Your task to perform on an android device: Go to calendar. Show me events next week Image 0: 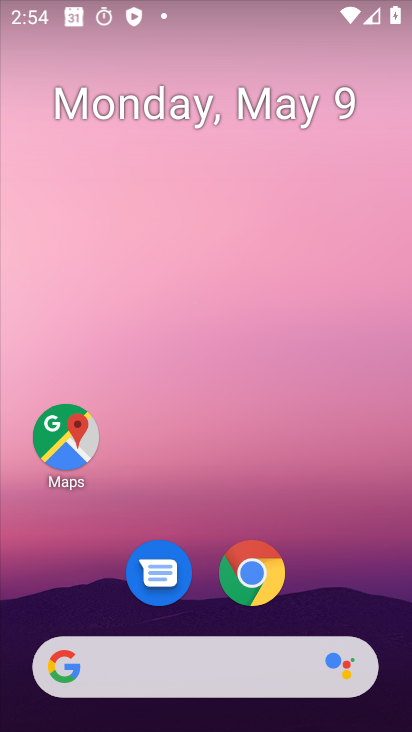
Step 0: drag from (350, 695) to (226, 245)
Your task to perform on an android device: Go to calendar. Show me events next week Image 1: 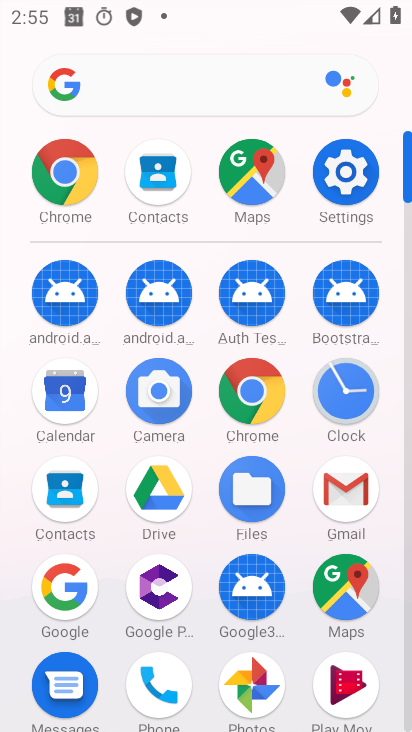
Step 1: click (335, 176)
Your task to perform on an android device: Go to calendar. Show me events next week Image 2: 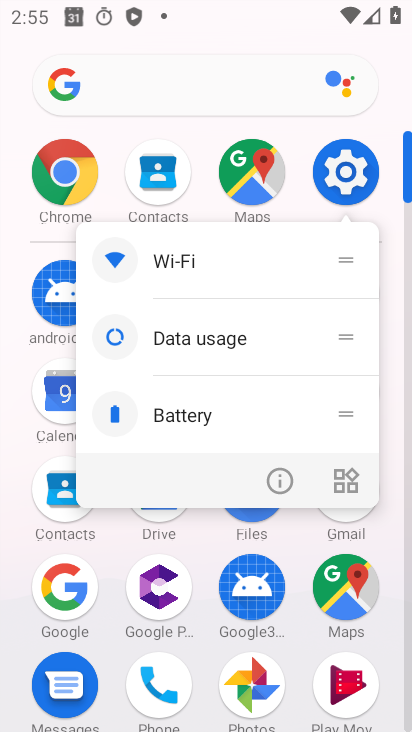
Step 2: click (344, 162)
Your task to perform on an android device: Go to calendar. Show me events next week Image 3: 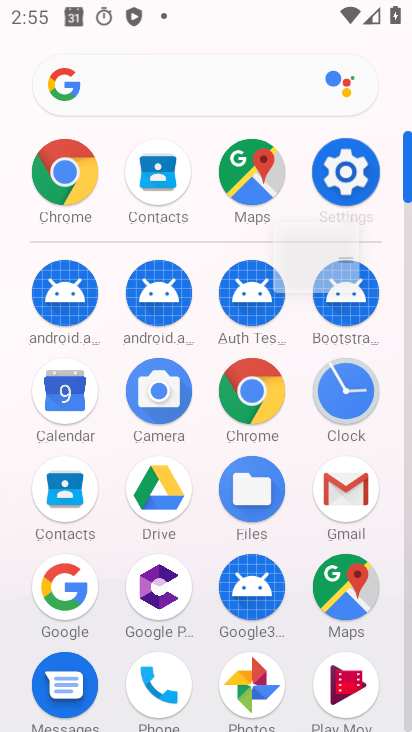
Step 3: click (345, 161)
Your task to perform on an android device: Go to calendar. Show me events next week Image 4: 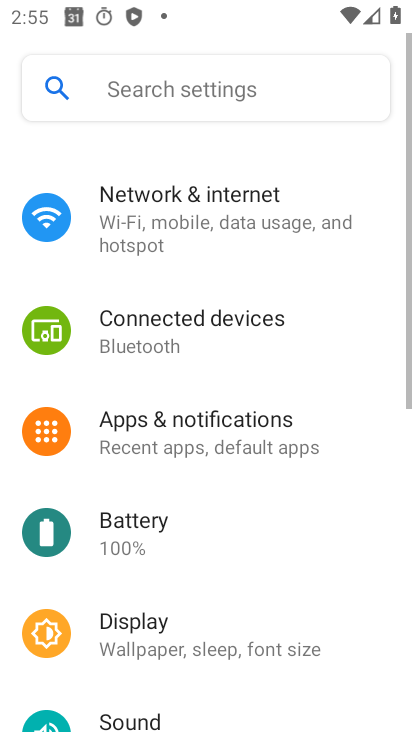
Step 4: click (345, 161)
Your task to perform on an android device: Go to calendar. Show me events next week Image 5: 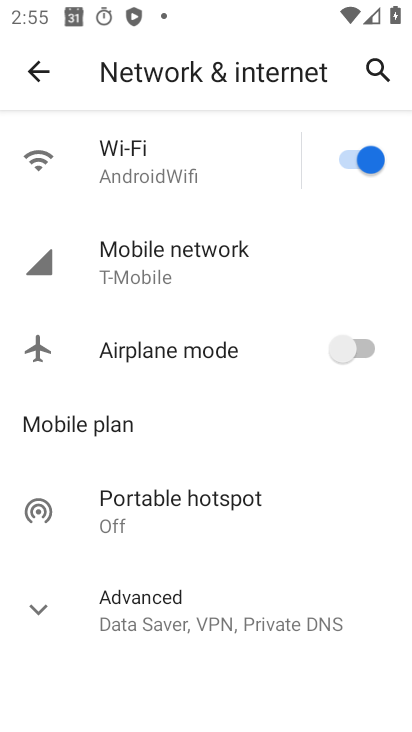
Step 5: click (199, 367)
Your task to perform on an android device: Go to calendar. Show me events next week Image 6: 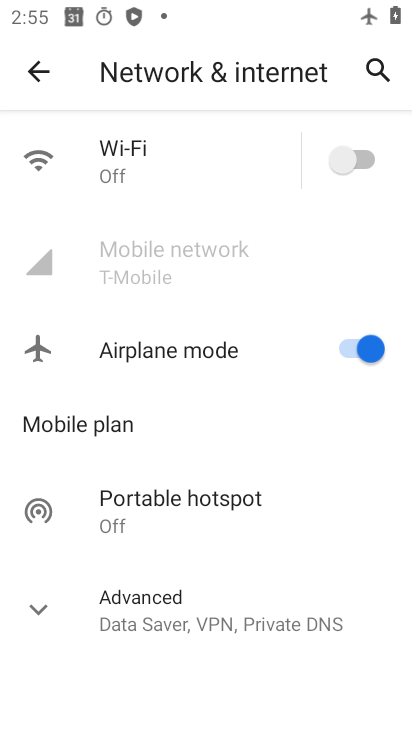
Step 6: click (348, 160)
Your task to perform on an android device: Go to calendar. Show me events next week Image 7: 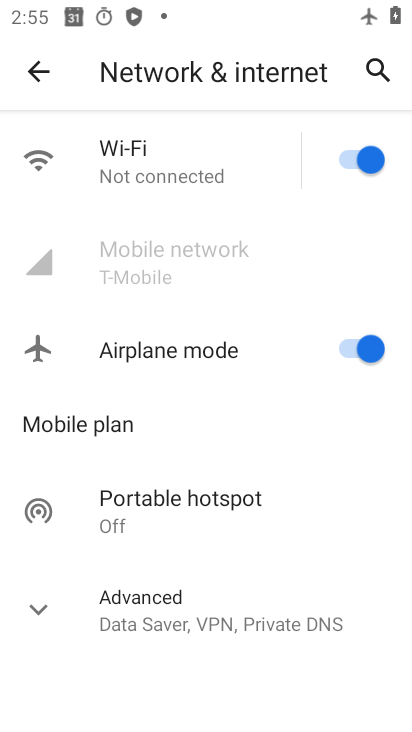
Step 7: click (370, 347)
Your task to perform on an android device: Go to calendar. Show me events next week Image 8: 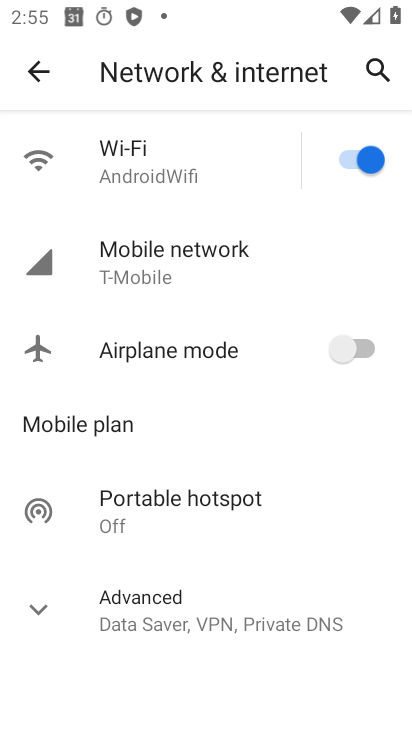
Step 8: press back button
Your task to perform on an android device: Go to calendar. Show me events next week Image 9: 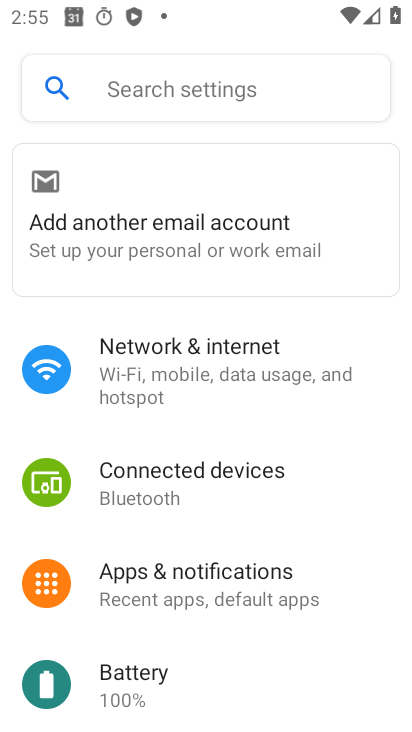
Step 9: press home button
Your task to perform on an android device: Go to calendar. Show me events next week Image 10: 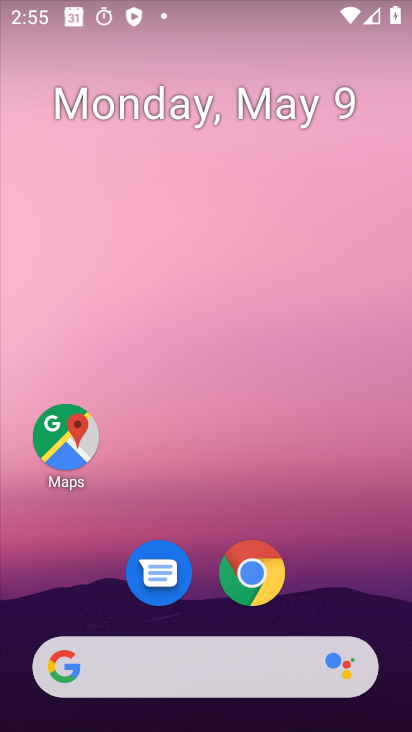
Step 10: drag from (361, 580) to (170, 22)
Your task to perform on an android device: Go to calendar. Show me events next week Image 11: 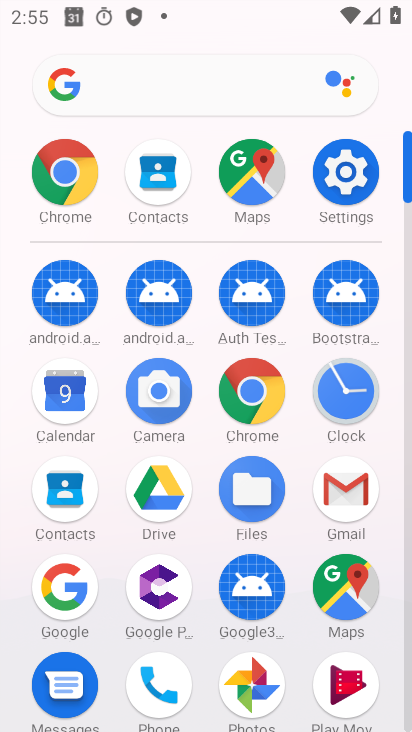
Step 11: click (65, 444)
Your task to perform on an android device: Go to calendar. Show me events next week Image 12: 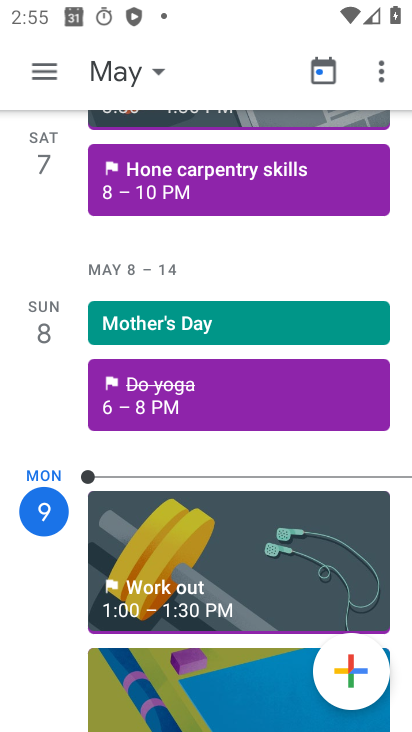
Step 12: click (160, 67)
Your task to perform on an android device: Go to calendar. Show me events next week Image 13: 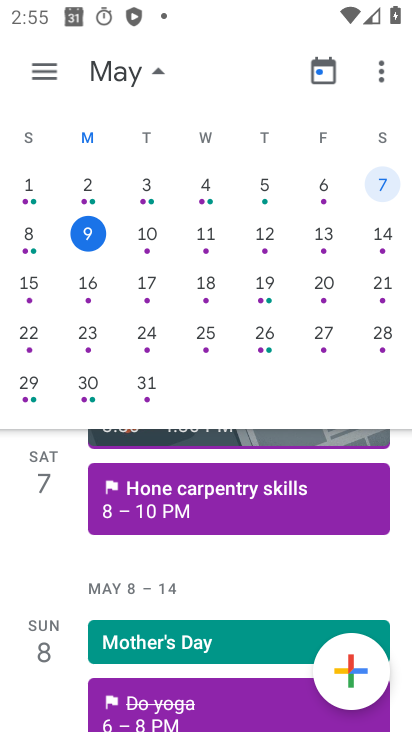
Step 13: drag from (198, 545) to (150, 205)
Your task to perform on an android device: Go to calendar. Show me events next week Image 14: 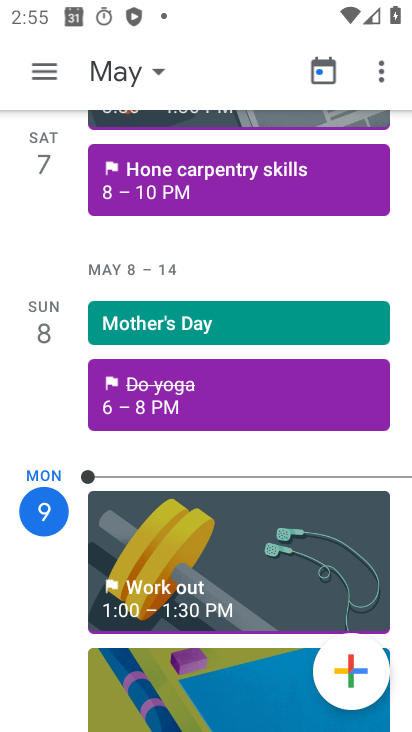
Step 14: drag from (238, 513) to (199, 212)
Your task to perform on an android device: Go to calendar. Show me events next week Image 15: 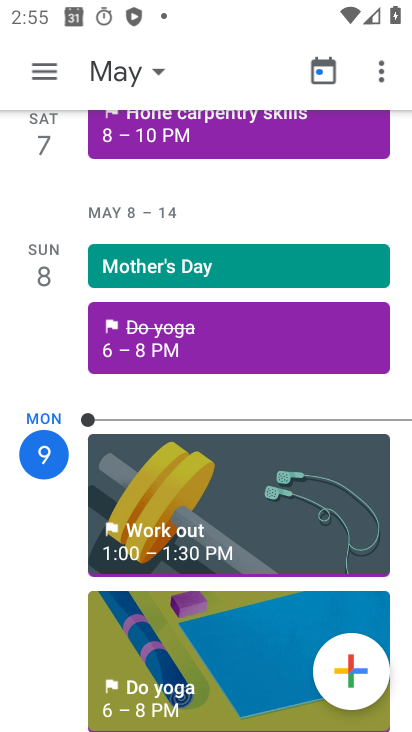
Step 15: drag from (216, 514) to (193, 154)
Your task to perform on an android device: Go to calendar. Show me events next week Image 16: 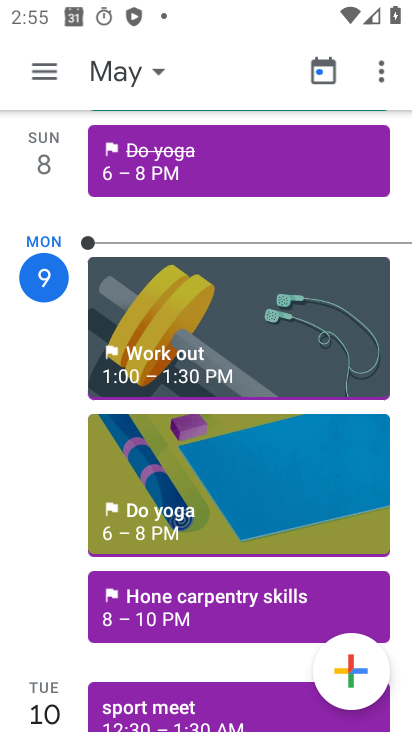
Step 16: drag from (181, 485) to (116, 205)
Your task to perform on an android device: Go to calendar. Show me events next week Image 17: 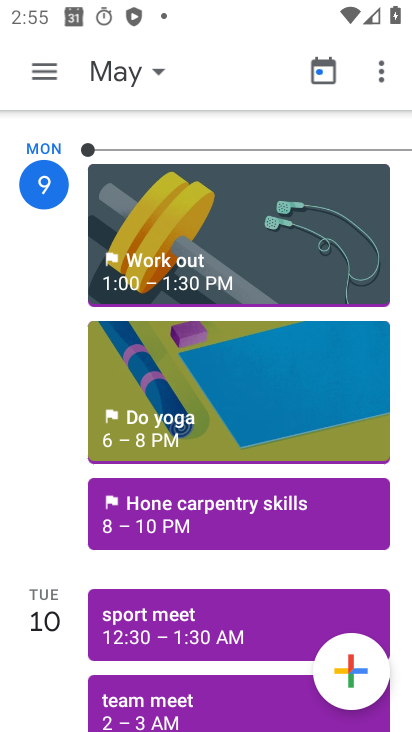
Step 17: drag from (130, 607) to (104, 167)
Your task to perform on an android device: Go to calendar. Show me events next week Image 18: 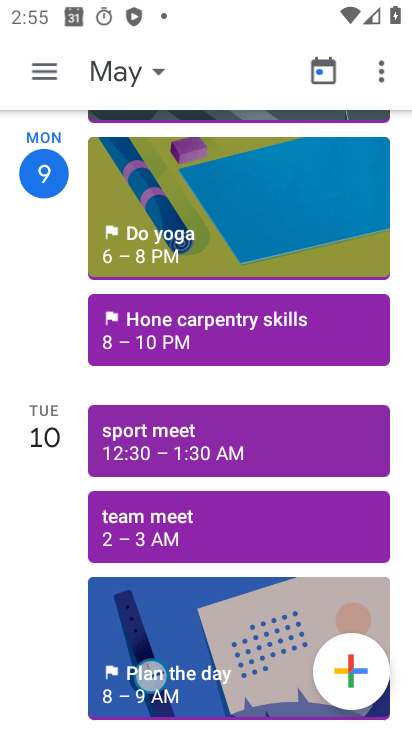
Step 18: drag from (188, 557) to (136, 184)
Your task to perform on an android device: Go to calendar. Show me events next week Image 19: 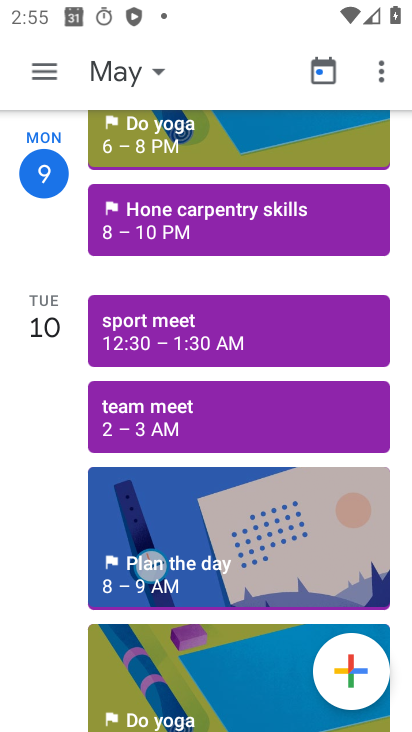
Step 19: drag from (134, 584) to (118, 203)
Your task to perform on an android device: Go to calendar. Show me events next week Image 20: 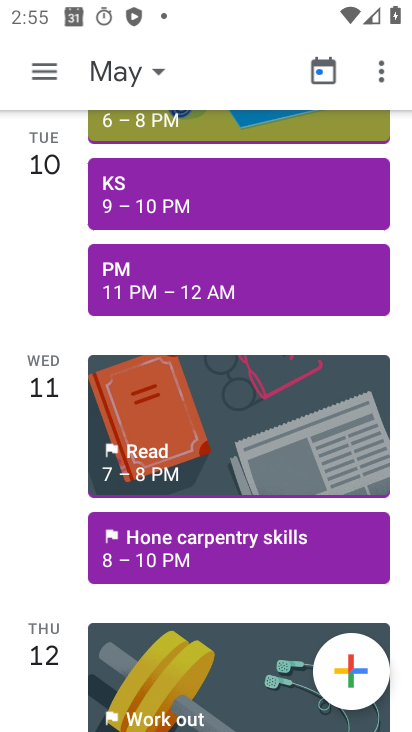
Step 20: click (106, 139)
Your task to perform on an android device: Go to calendar. Show me events next week Image 21: 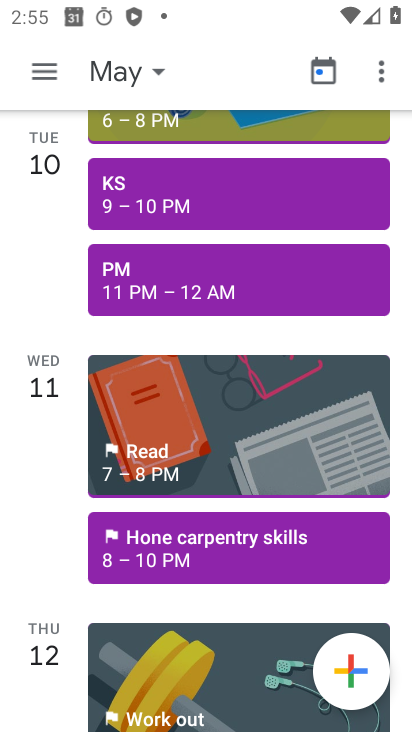
Step 21: drag from (180, 515) to (149, 157)
Your task to perform on an android device: Go to calendar. Show me events next week Image 22: 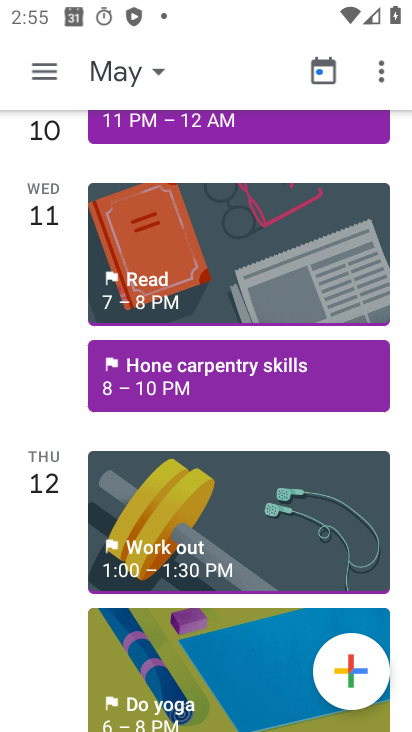
Step 22: drag from (120, 599) to (105, 190)
Your task to perform on an android device: Go to calendar. Show me events next week Image 23: 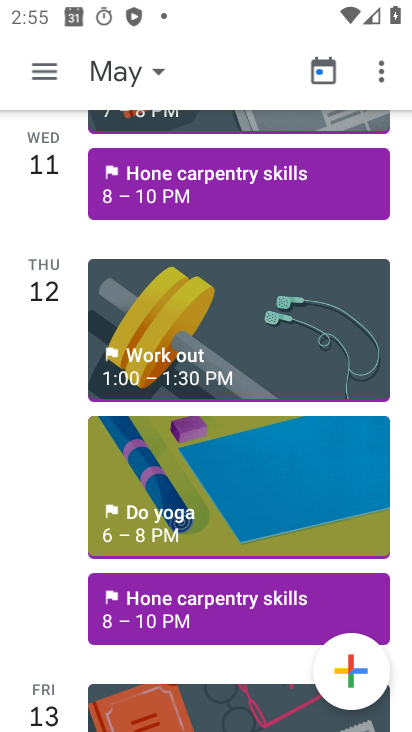
Step 23: drag from (137, 601) to (137, 174)
Your task to perform on an android device: Go to calendar. Show me events next week Image 24: 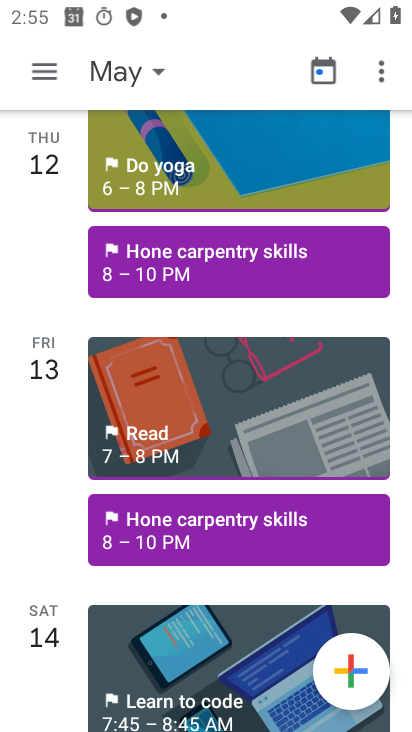
Step 24: drag from (198, 574) to (230, 272)
Your task to perform on an android device: Go to calendar. Show me events next week Image 25: 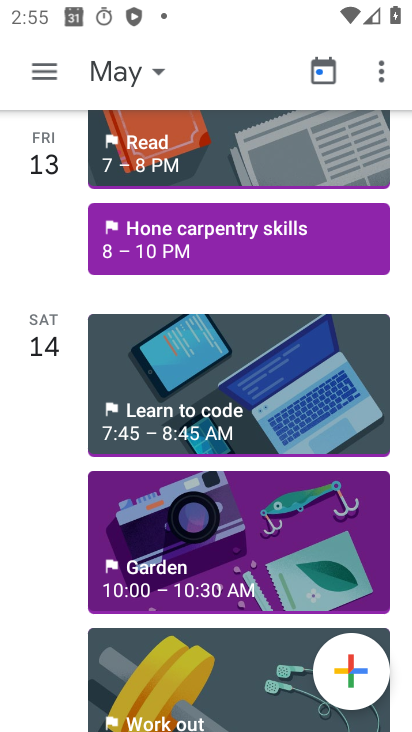
Step 25: drag from (248, 430) to (248, 227)
Your task to perform on an android device: Go to calendar. Show me events next week Image 26: 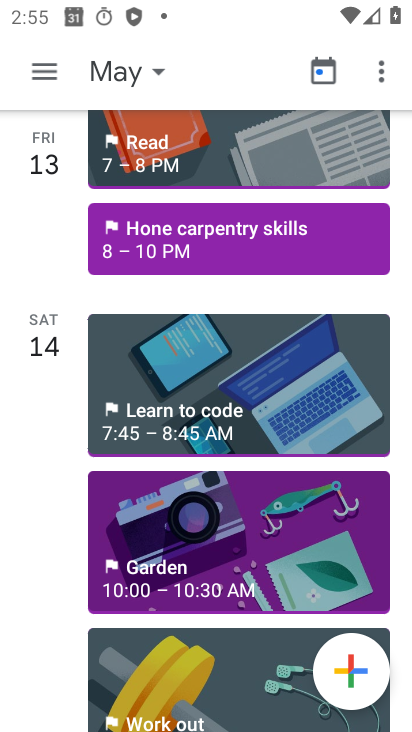
Step 26: drag from (220, 406) to (220, 230)
Your task to perform on an android device: Go to calendar. Show me events next week Image 27: 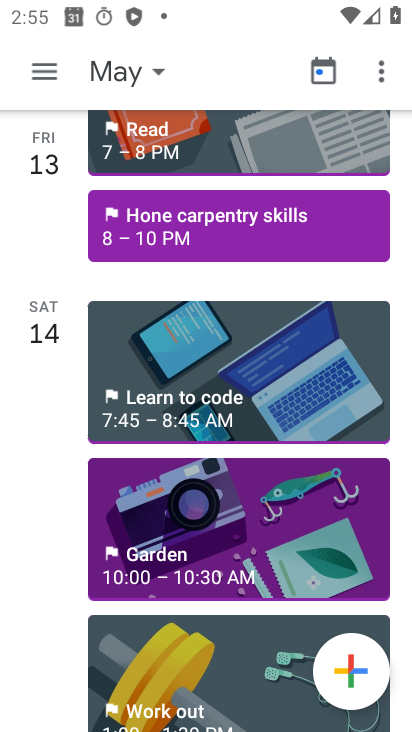
Step 27: drag from (220, 560) to (220, 299)
Your task to perform on an android device: Go to calendar. Show me events next week Image 28: 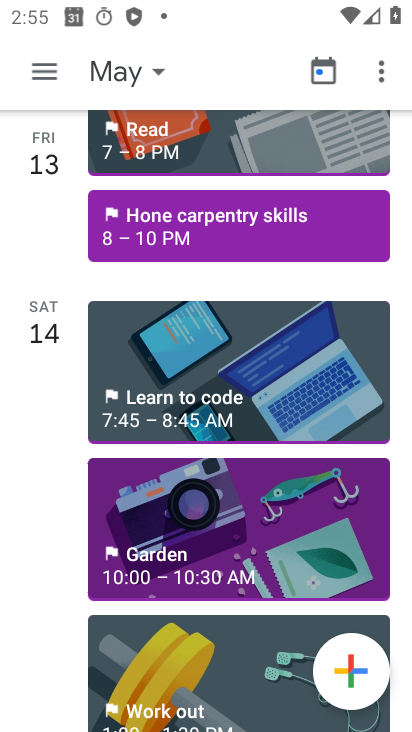
Step 28: drag from (261, 581) to (162, 275)
Your task to perform on an android device: Go to calendar. Show me events next week Image 29: 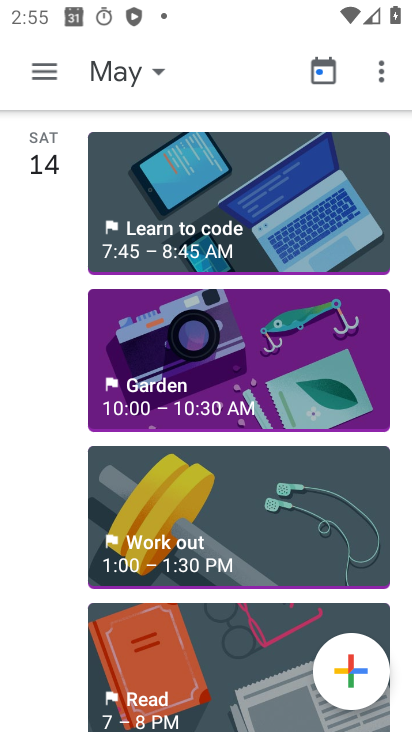
Step 29: drag from (173, 392) to (194, 103)
Your task to perform on an android device: Go to calendar. Show me events next week Image 30: 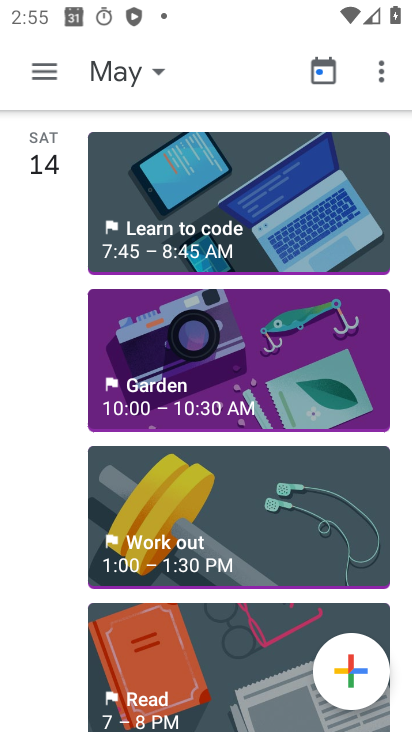
Step 30: drag from (225, 421) to (263, 95)
Your task to perform on an android device: Go to calendar. Show me events next week Image 31: 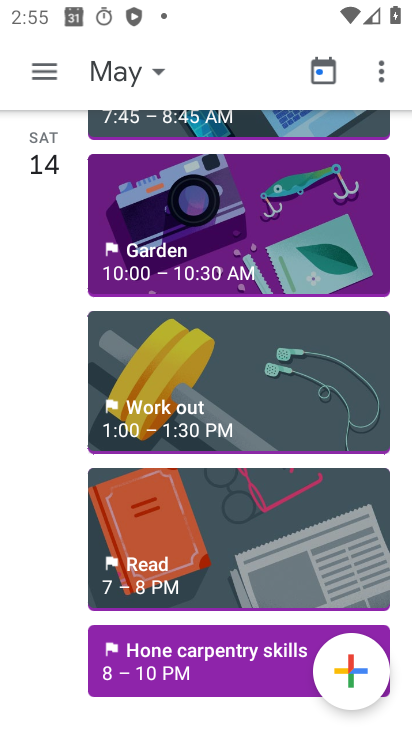
Step 31: drag from (285, 533) to (230, 266)
Your task to perform on an android device: Go to calendar. Show me events next week Image 32: 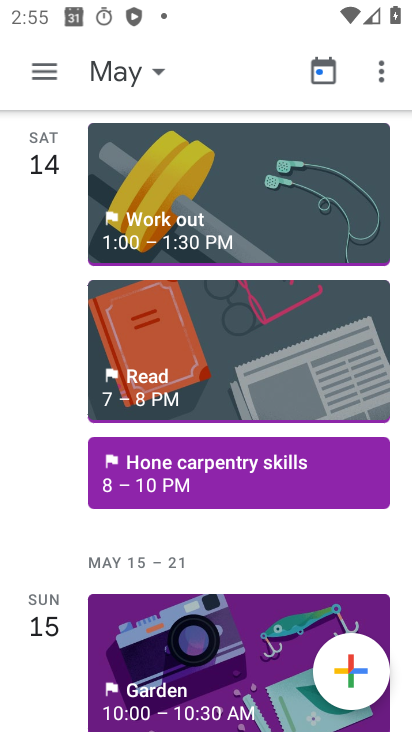
Step 32: drag from (222, 489) to (222, 125)
Your task to perform on an android device: Go to calendar. Show me events next week Image 33: 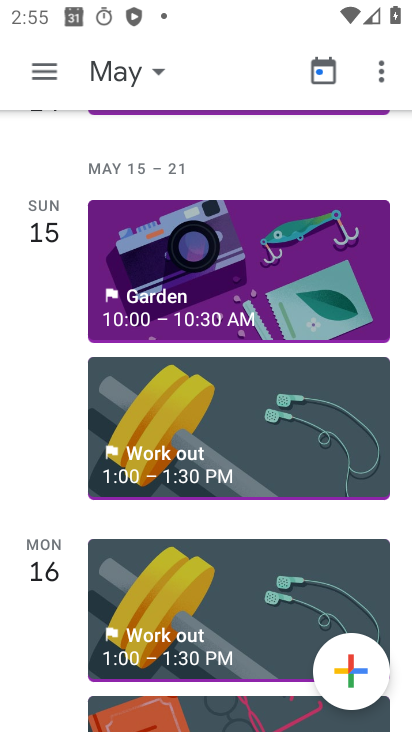
Step 33: drag from (162, 375) to (138, 206)
Your task to perform on an android device: Go to calendar. Show me events next week Image 34: 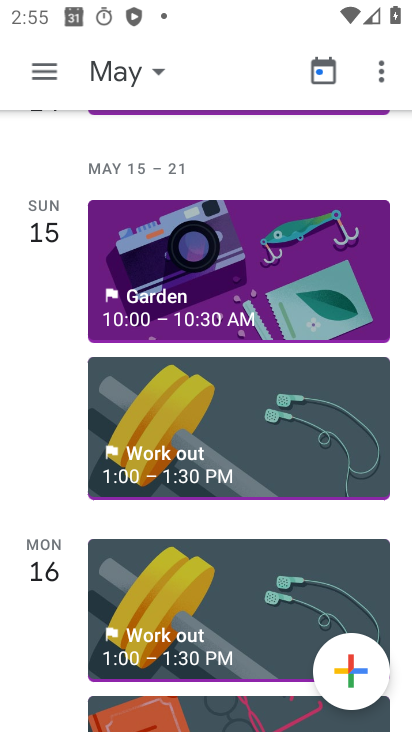
Step 34: drag from (167, 405) to (154, 163)
Your task to perform on an android device: Go to calendar. Show me events next week Image 35: 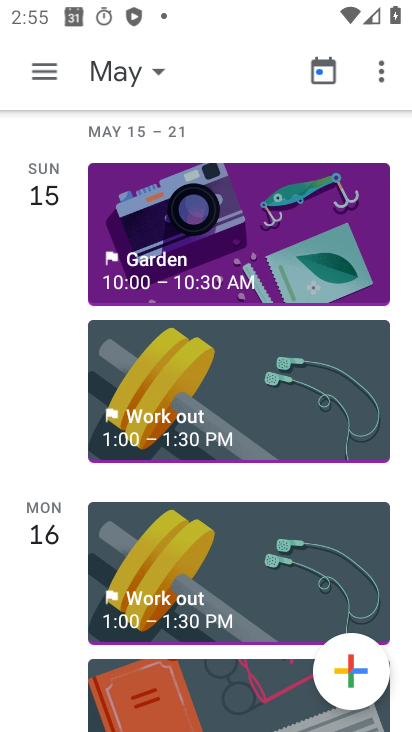
Step 35: click (190, 566)
Your task to perform on an android device: Go to calendar. Show me events next week Image 36: 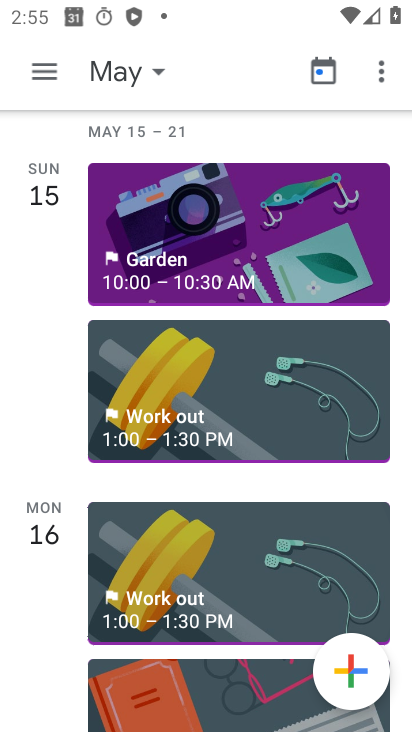
Step 36: click (190, 566)
Your task to perform on an android device: Go to calendar. Show me events next week Image 37: 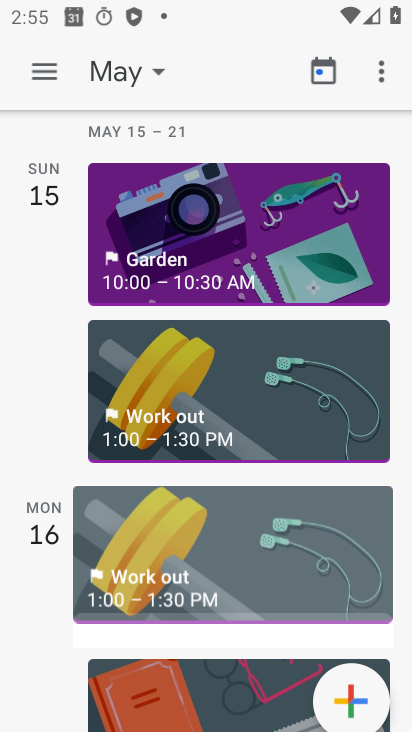
Step 37: click (190, 566)
Your task to perform on an android device: Go to calendar. Show me events next week Image 38: 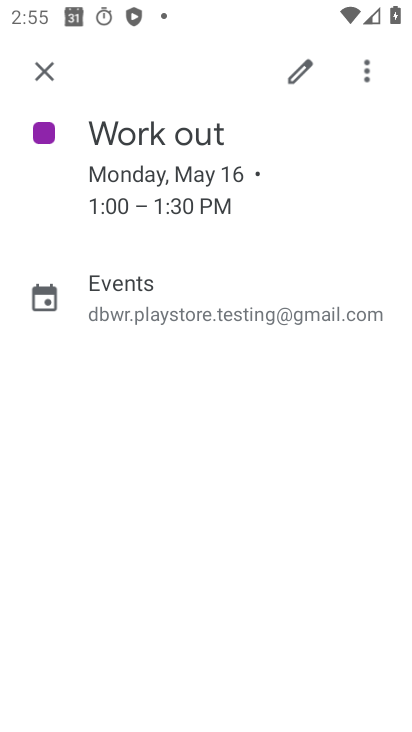
Step 38: task complete